Your task to perform on an android device: Go to CNN.com Image 0: 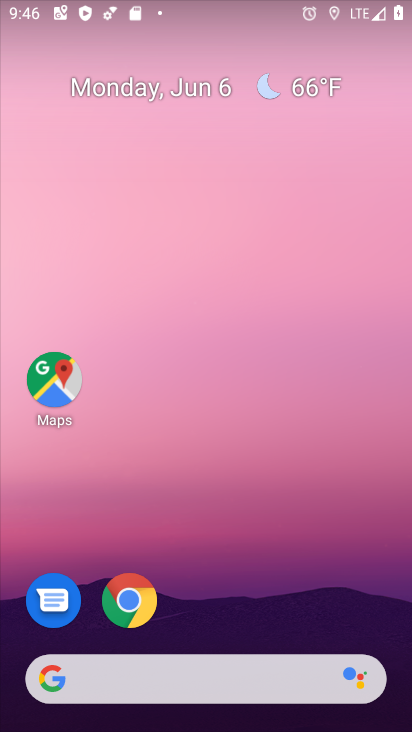
Step 0: click (167, 678)
Your task to perform on an android device: Go to CNN.com Image 1: 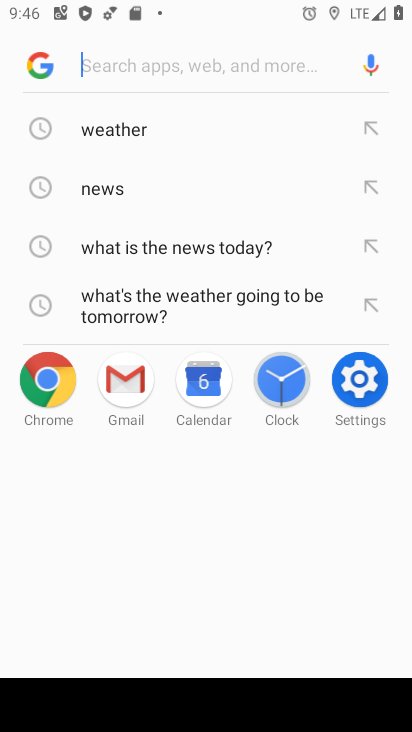
Step 1: click (112, 69)
Your task to perform on an android device: Go to CNN.com Image 2: 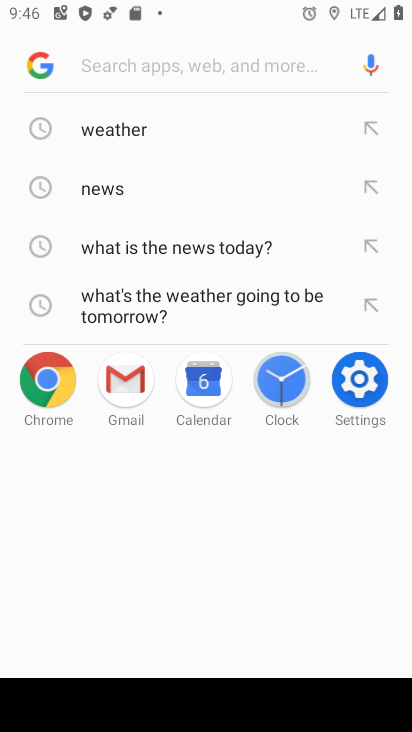
Step 2: type "CNN.com"
Your task to perform on an android device: Go to CNN.com Image 3: 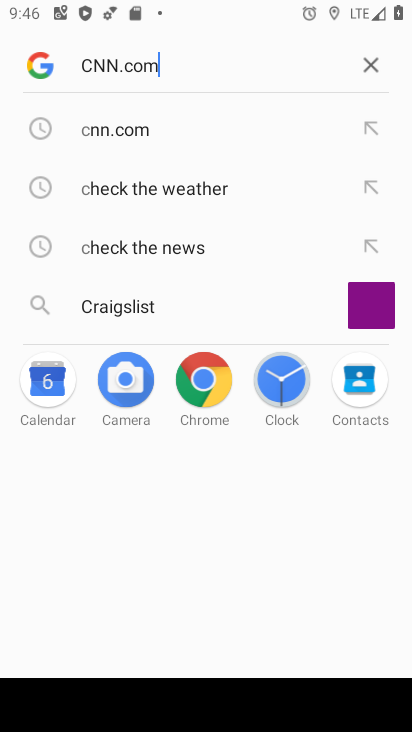
Step 3: type ""
Your task to perform on an android device: Go to CNN.com Image 4: 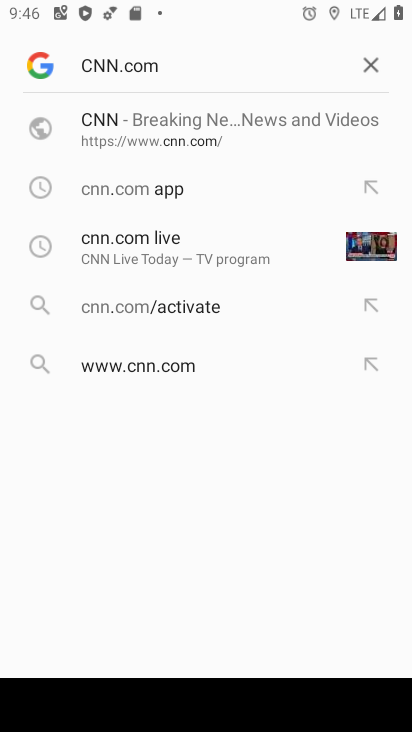
Step 4: click (136, 119)
Your task to perform on an android device: Go to CNN.com Image 5: 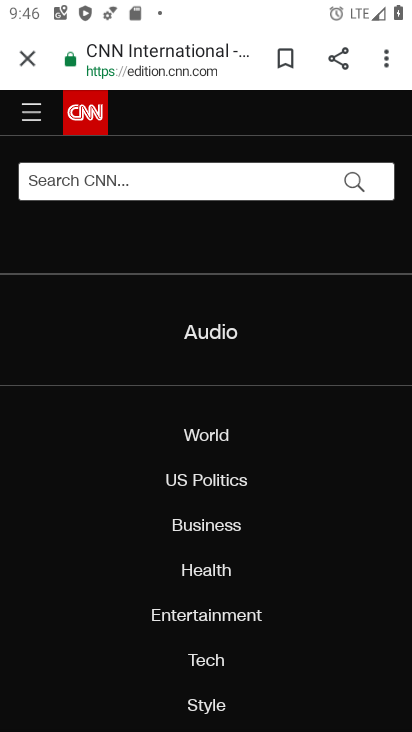
Step 5: task complete